Your task to perform on an android device: turn on wifi Image 0: 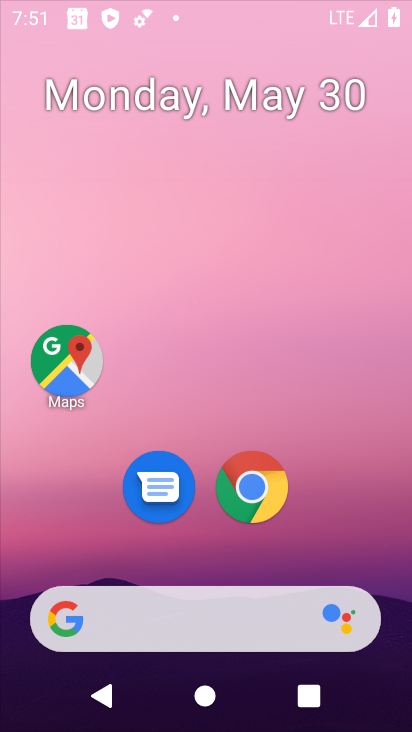
Step 0: click (256, 485)
Your task to perform on an android device: turn on wifi Image 1: 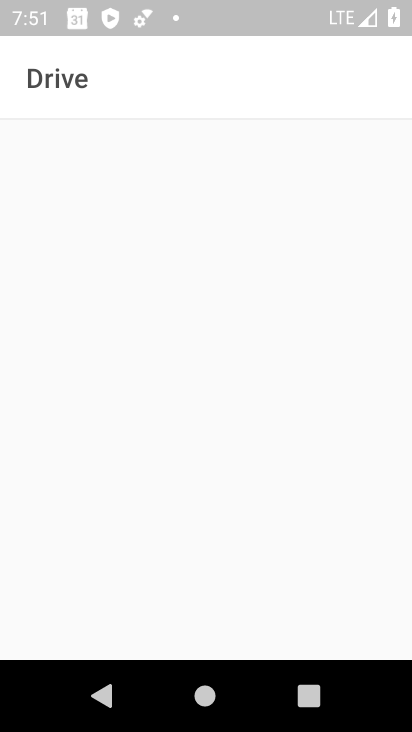
Step 1: click (249, 482)
Your task to perform on an android device: turn on wifi Image 2: 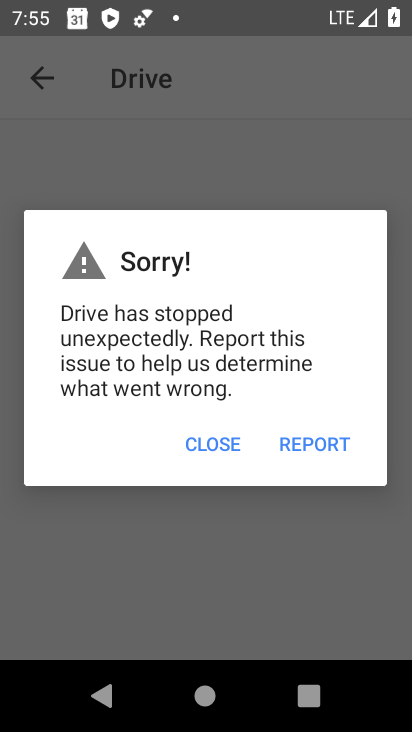
Step 2: press home button
Your task to perform on an android device: turn on wifi Image 3: 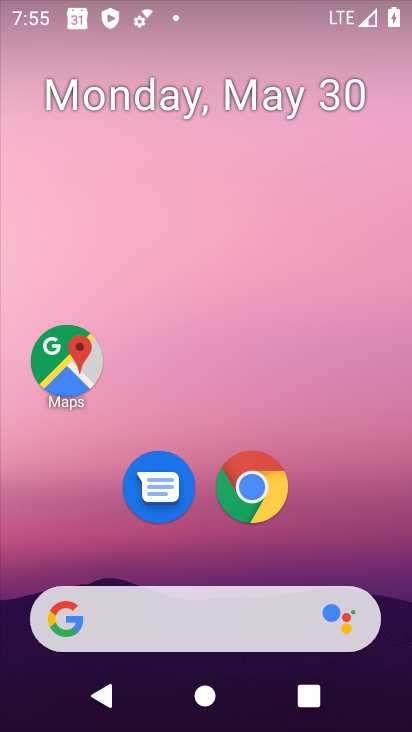
Step 3: drag from (403, 708) to (321, 152)
Your task to perform on an android device: turn on wifi Image 4: 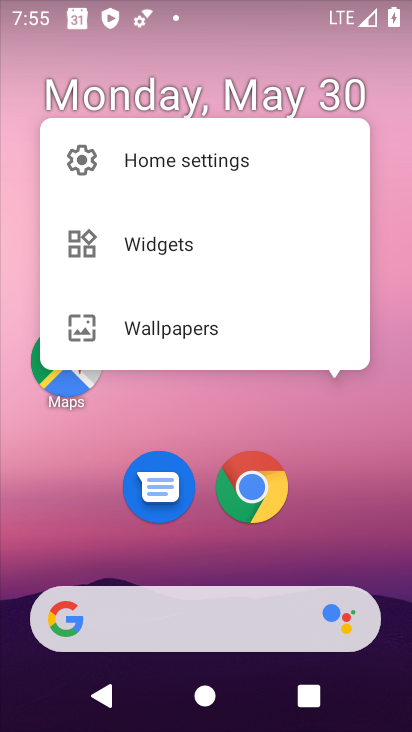
Step 4: click (383, 540)
Your task to perform on an android device: turn on wifi Image 5: 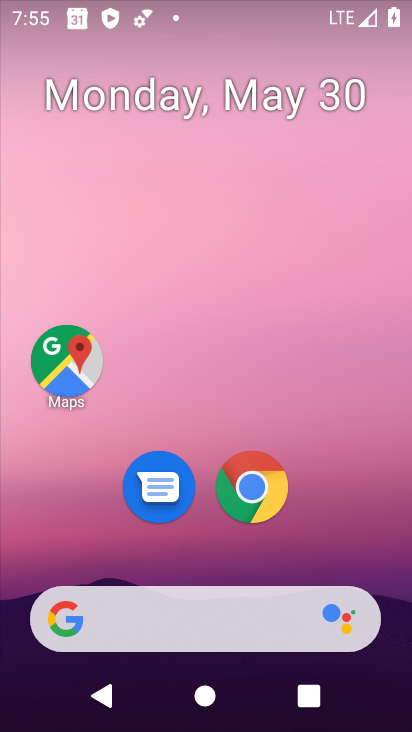
Step 5: drag from (394, 694) to (265, 67)
Your task to perform on an android device: turn on wifi Image 6: 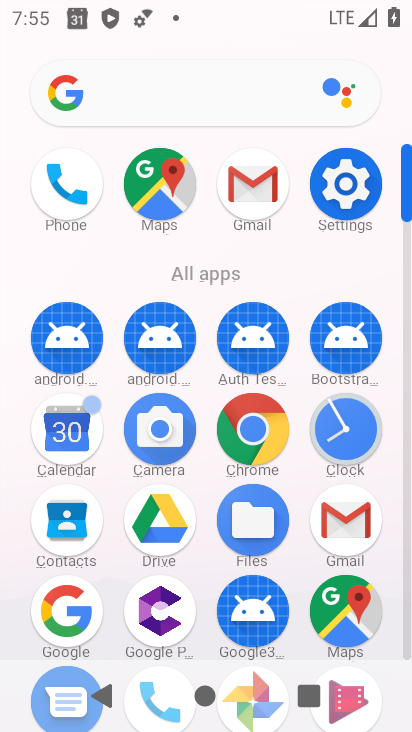
Step 6: click (358, 204)
Your task to perform on an android device: turn on wifi Image 7: 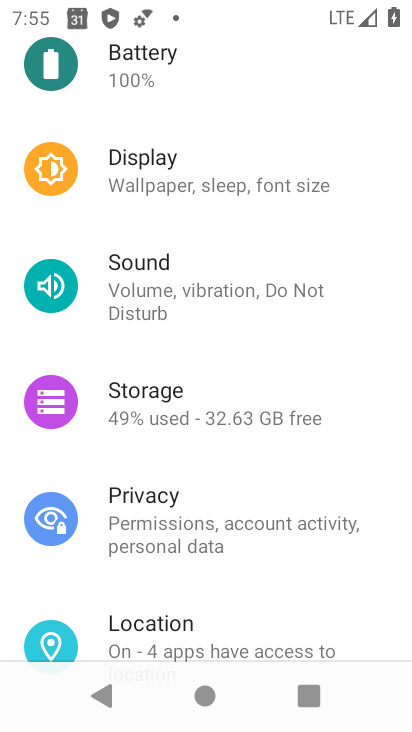
Step 7: drag from (251, 88) to (286, 597)
Your task to perform on an android device: turn on wifi Image 8: 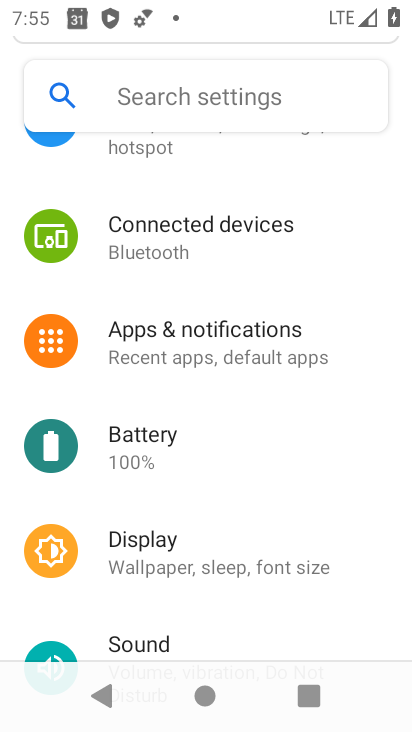
Step 8: drag from (198, 166) to (214, 578)
Your task to perform on an android device: turn on wifi Image 9: 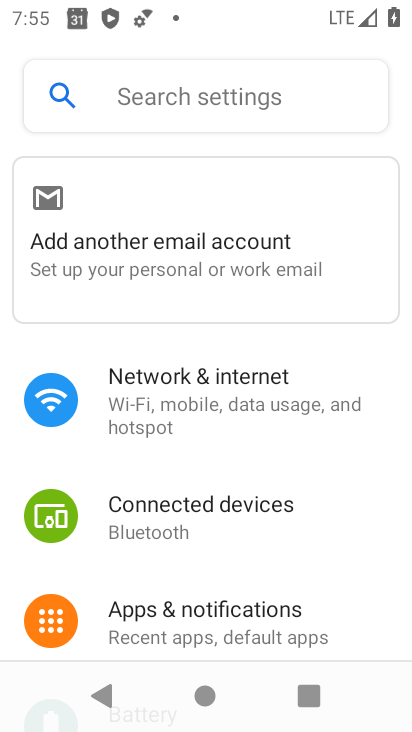
Step 9: click (175, 388)
Your task to perform on an android device: turn on wifi Image 10: 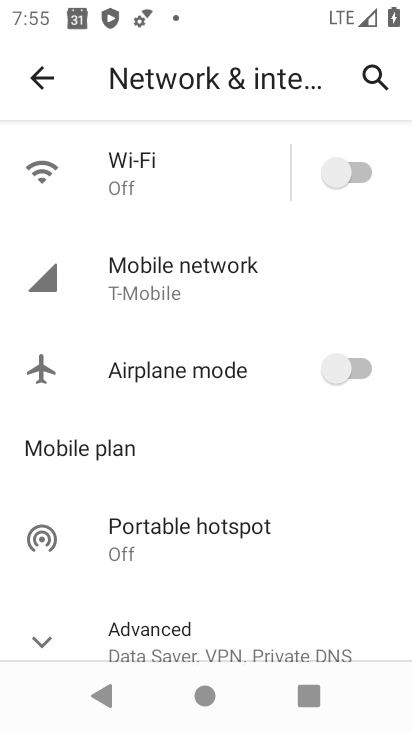
Step 10: click (360, 175)
Your task to perform on an android device: turn on wifi Image 11: 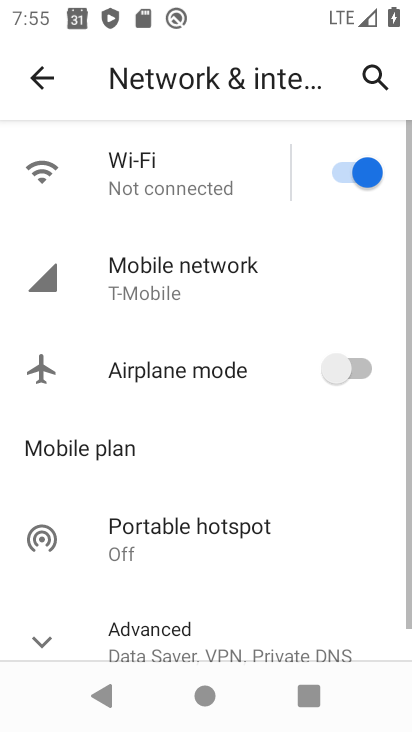
Step 11: task complete